Your task to perform on an android device: snooze an email in the gmail app Image 0: 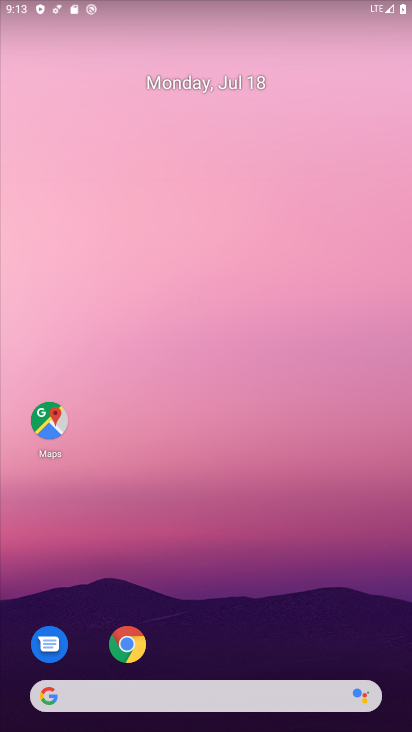
Step 0: drag from (349, 632) to (363, 107)
Your task to perform on an android device: snooze an email in the gmail app Image 1: 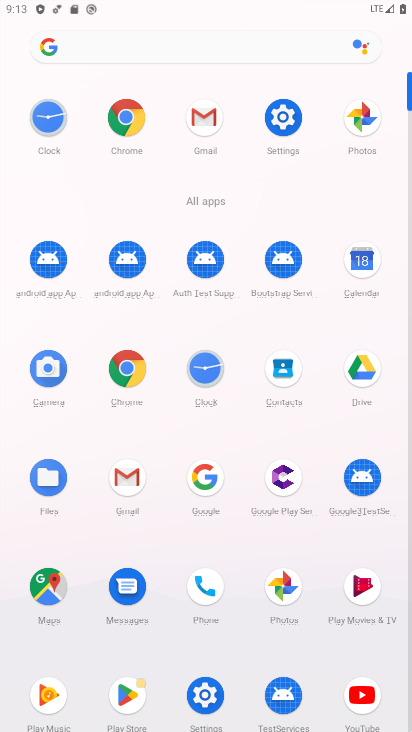
Step 1: click (124, 485)
Your task to perform on an android device: snooze an email in the gmail app Image 2: 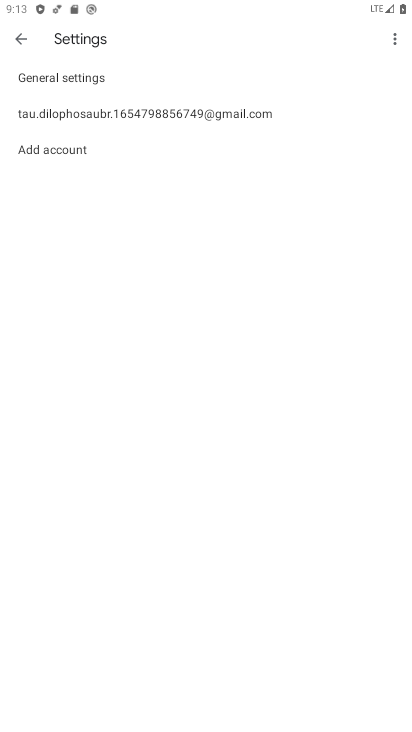
Step 2: press back button
Your task to perform on an android device: snooze an email in the gmail app Image 3: 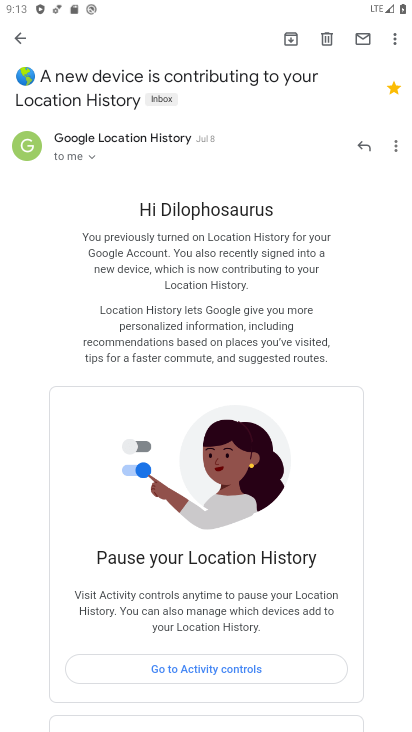
Step 3: press back button
Your task to perform on an android device: snooze an email in the gmail app Image 4: 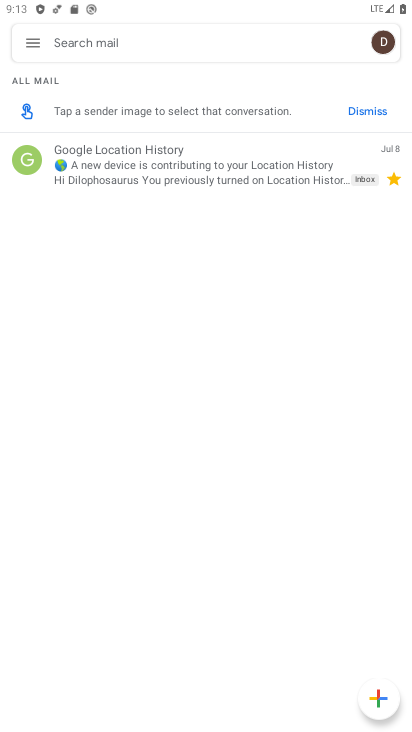
Step 4: click (29, 47)
Your task to perform on an android device: snooze an email in the gmail app Image 5: 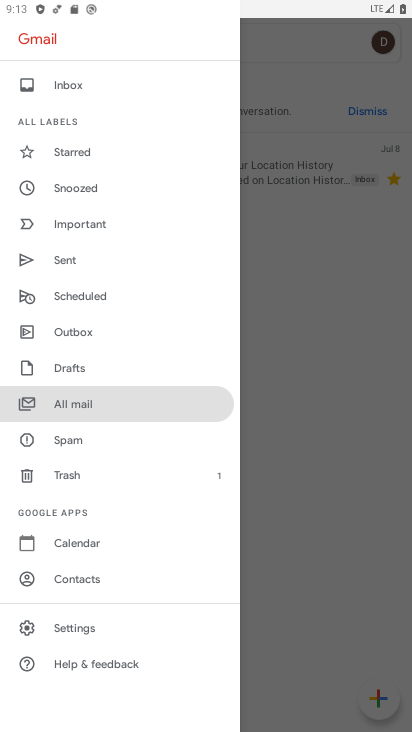
Step 5: click (106, 183)
Your task to perform on an android device: snooze an email in the gmail app Image 6: 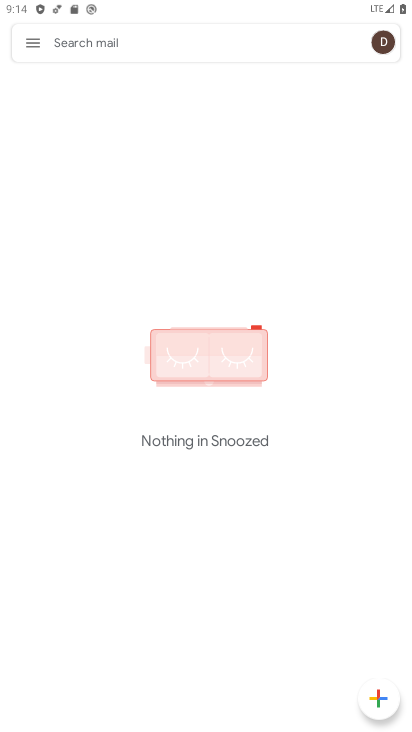
Step 6: task complete